Your task to perform on an android device: Open Google Chrome and click the shortcut for Amazon.com Image 0: 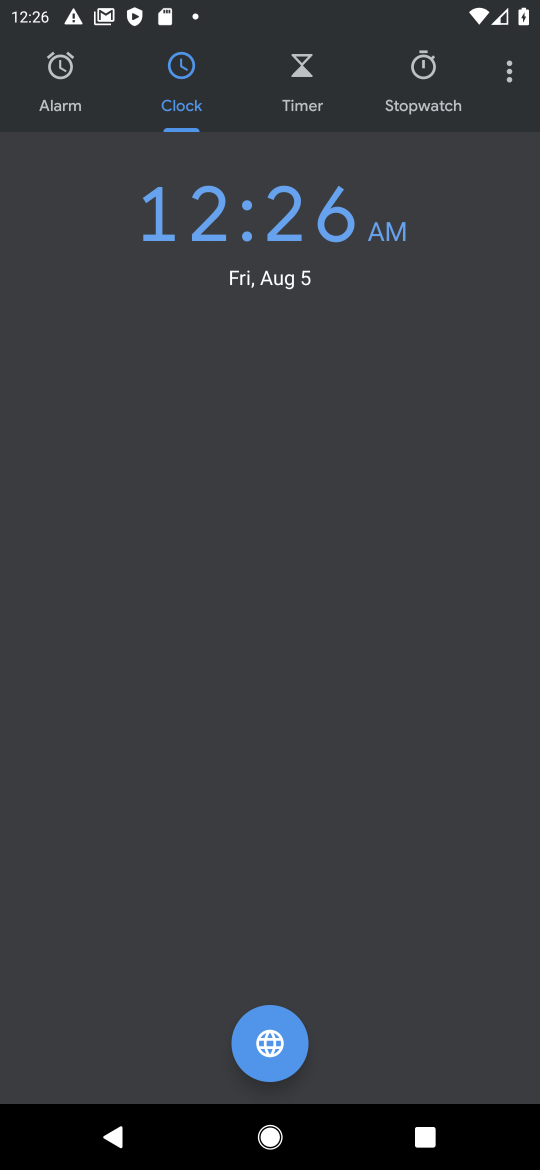
Step 0: press home button
Your task to perform on an android device: Open Google Chrome and click the shortcut for Amazon.com Image 1: 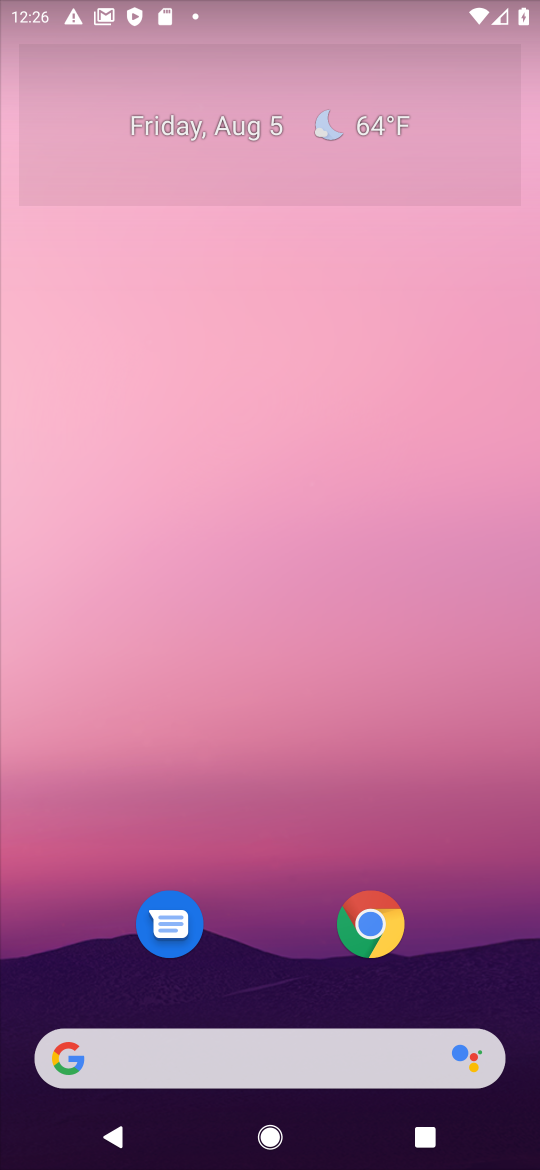
Step 1: drag from (281, 712) to (217, 29)
Your task to perform on an android device: Open Google Chrome and click the shortcut for Amazon.com Image 2: 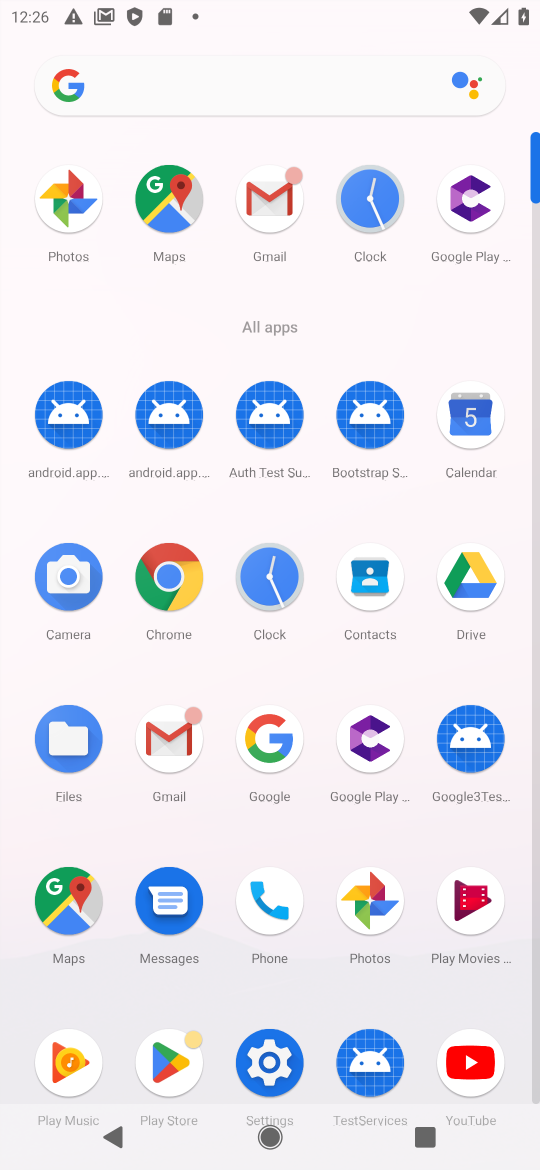
Step 2: click (180, 567)
Your task to perform on an android device: Open Google Chrome and click the shortcut for Amazon.com Image 3: 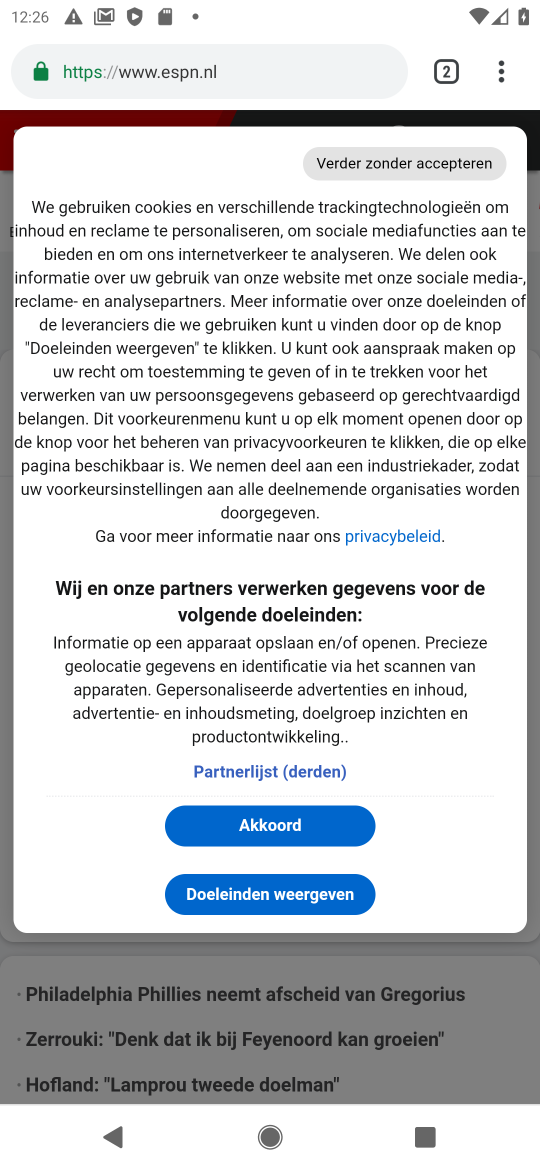
Step 3: click (264, 822)
Your task to perform on an android device: Open Google Chrome and click the shortcut for Amazon.com Image 4: 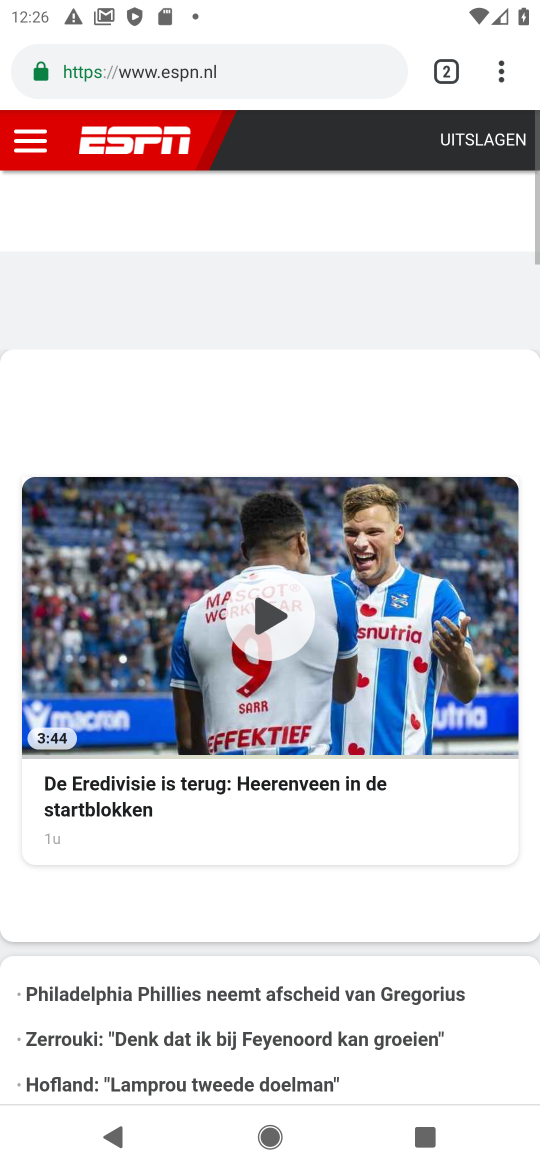
Step 4: click (459, 72)
Your task to perform on an android device: Open Google Chrome and click the shortcut for Amazon.com Image 5: 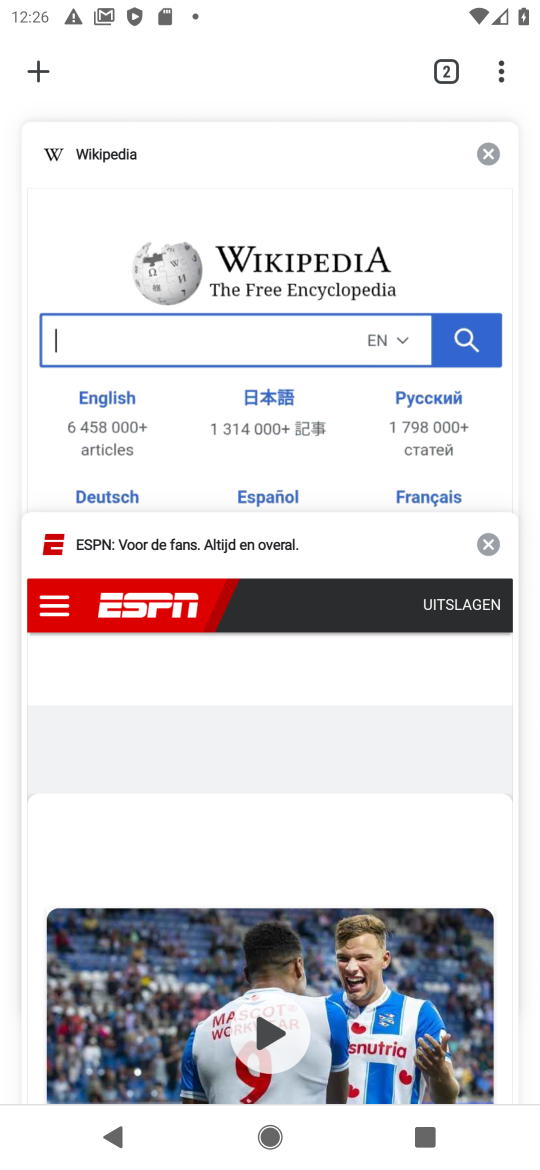
Step 5: click (40, 69)
Your task to perform on an android device: Open Google Chrome and click the shortcut for Amazon.com Image 6: 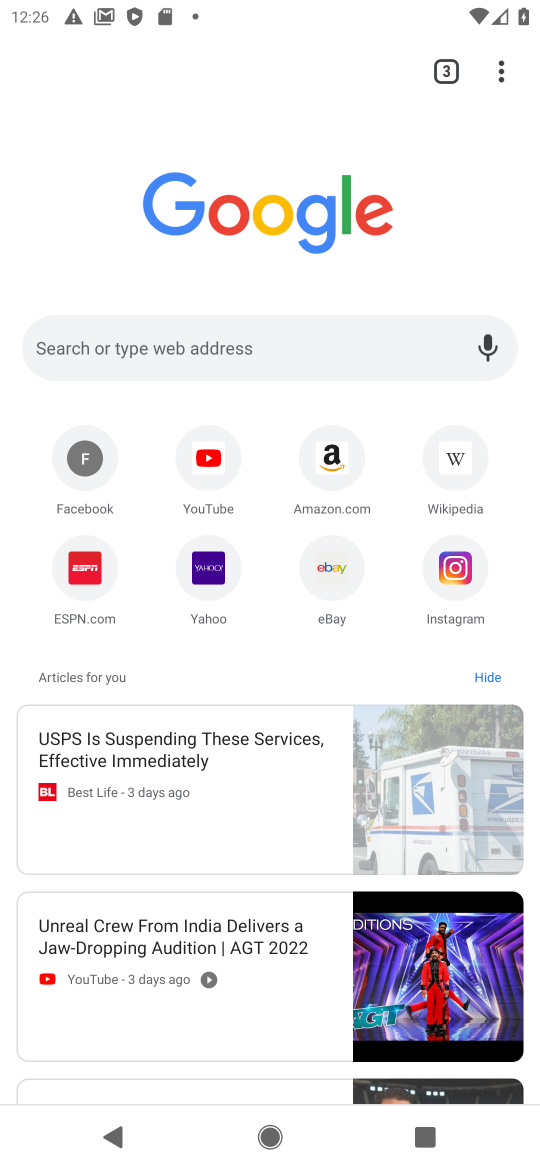
Step 6: click (333, 459)
Your task to perform on an android device: Open Google Chrome and click the shortcut for Amazon.com Image 7: 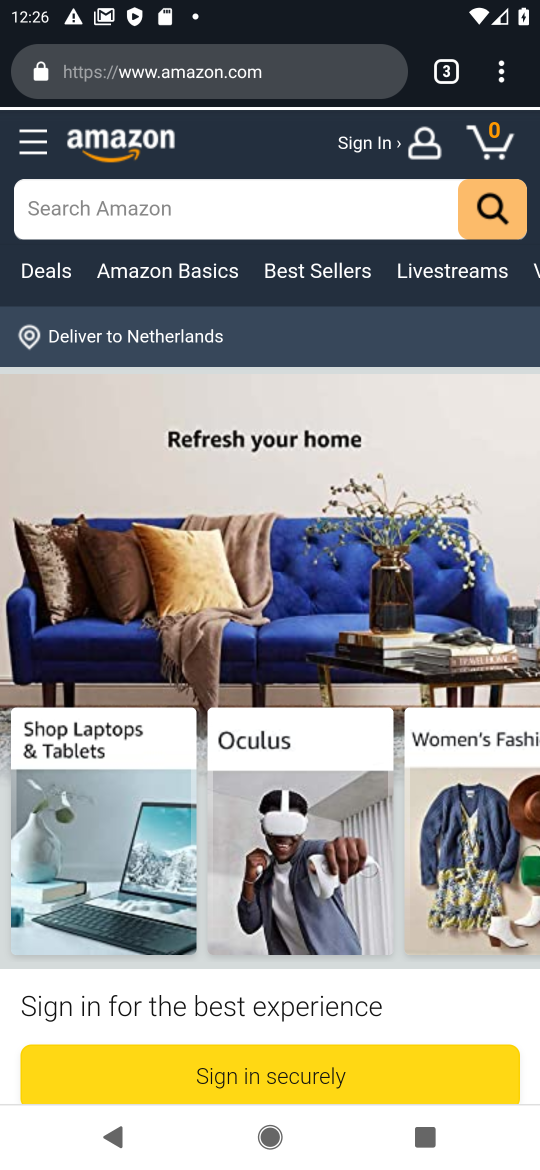
Step 7: task complete